Your task to perform on an android device: Go to Android settings Image 0: 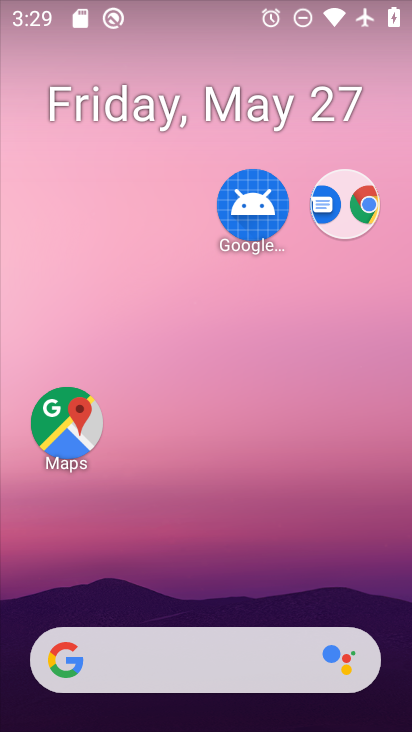
Step 0: drag from (245, 613) to (349, 15)
Your task to perform on an android device: Go to Android settings Image 1: 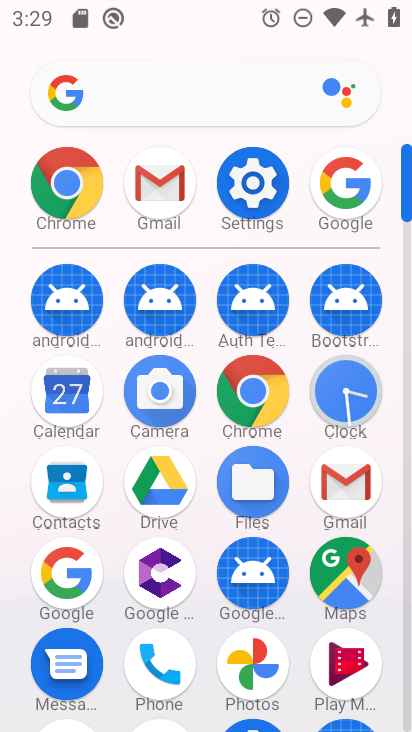
Step 1: click (251, 204)
Your task to perform on an android device: Go to Android settings Image 2: 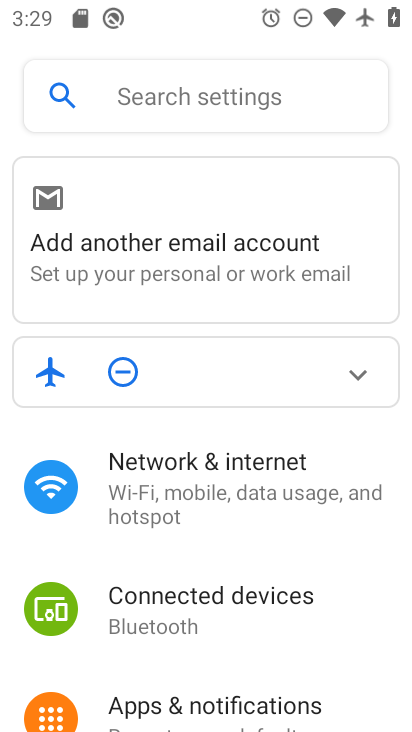
Step 2: drag from (264, 513) to (307, 280)
Your task to perform on an android device: Go to Android settings Image 3: 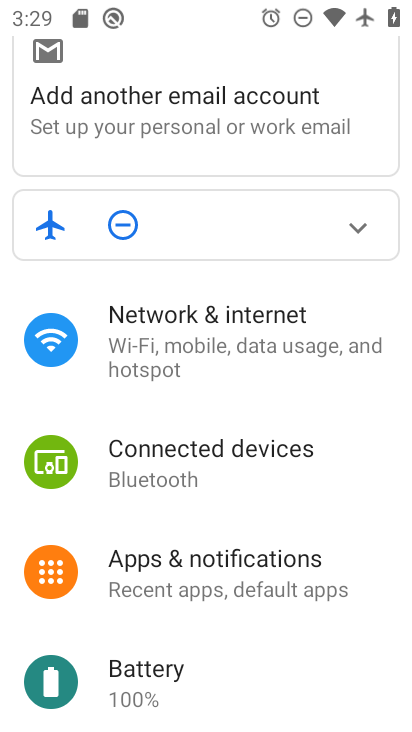
Step 3: drag from (229, 558) to (283, 36)
Your task to perform on an android device: Go to Android settings Image 4: 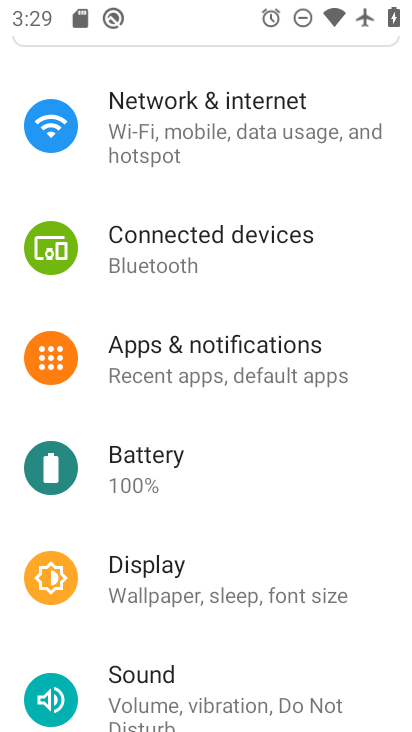
Step 4: drag from (279, 526) to (312, 158)
Your task to perform on an android device: Go to Android settings Image 5: 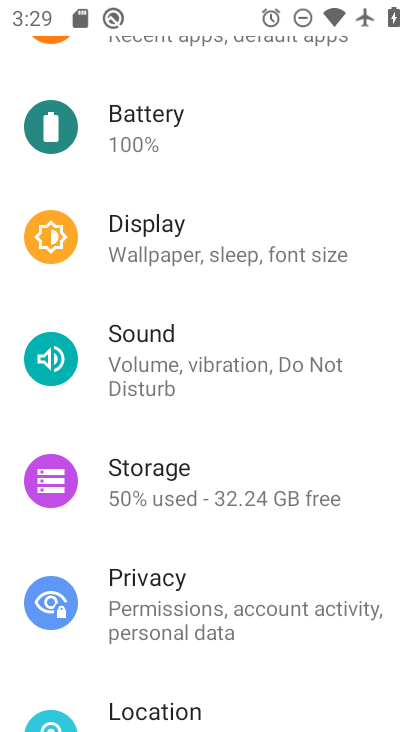
Step 5: drag from (226, 574) to (277, 243)
Your task to perform on an android device: Go to Android settings Image 6: 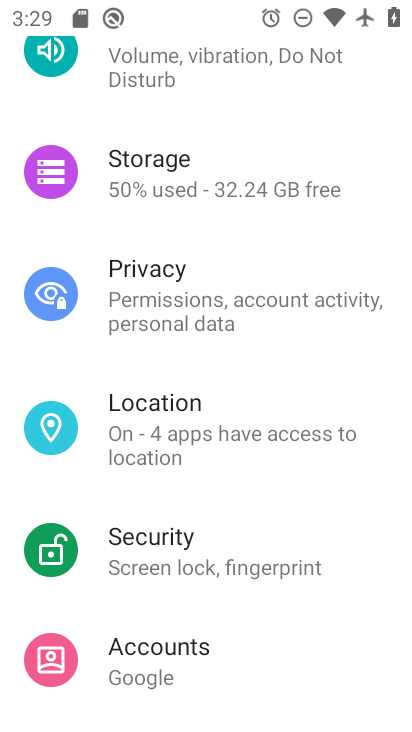
Step 6: drag from (219, 575) to (268, 260)
Your task to perform on an android device: Go to Android settings Image 7: 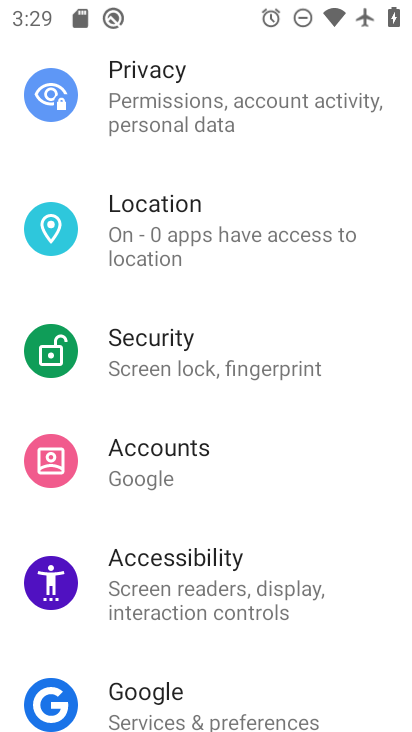
Step 7: drag from (193, 568) to (233, 160)
Your task to perform on an android device: Go to Android settings Image 8: 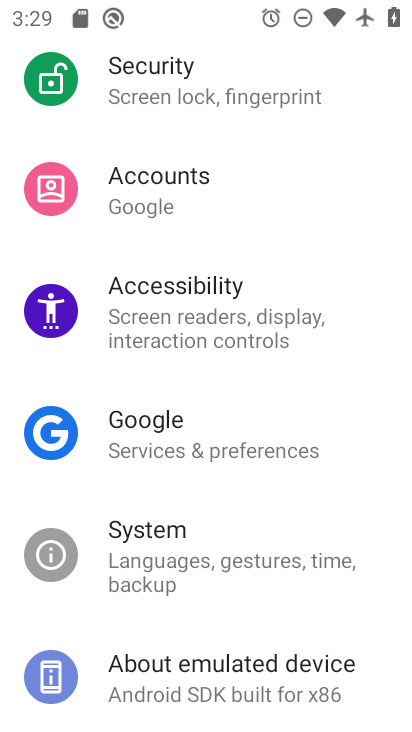
Step 8: drag from (142, 669) to (172, 357)
Your task to perform on an android device: Go to Android settings Image 9: 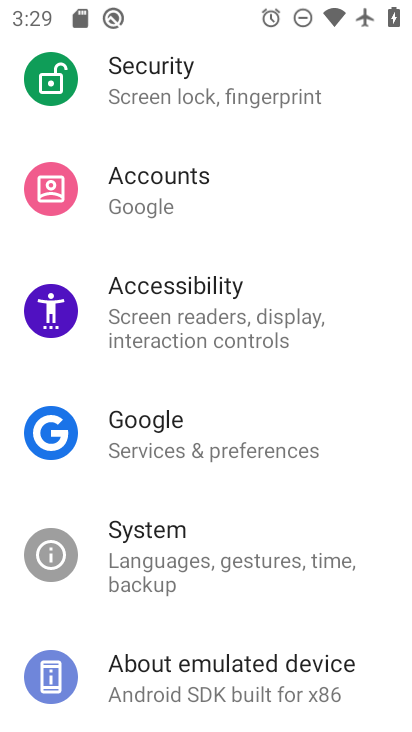
Step 9: click (212, 656)
Your task to perform on an android device: Go to Android settings Image 10: 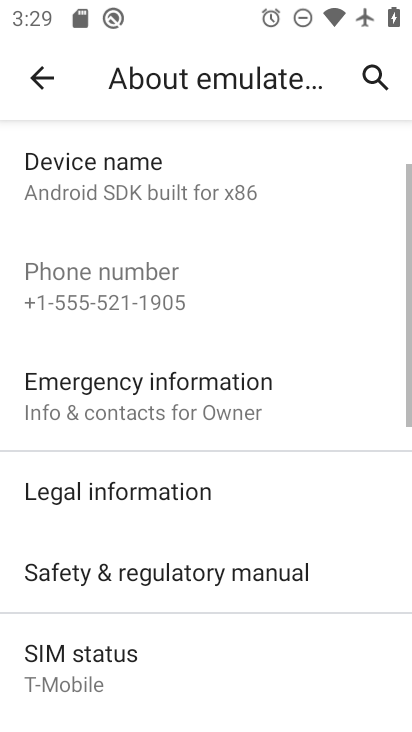
Step 10: task complete